Your task to perform on an android device: toggle airplane mode Image 0: 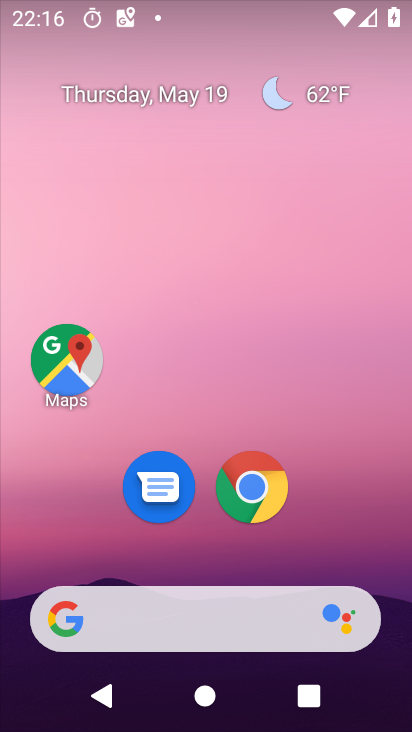
Step 0: drag from (311, 558) to (252, 161)
Your task to perform on an android device: toggle airplane mode Image 1: 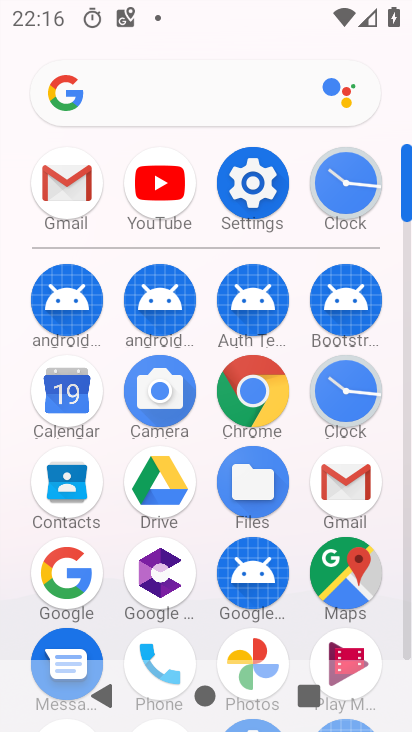
Step 1: click (264, 184)
Your task to perform on an android device: toggle airplane mode Image 2: 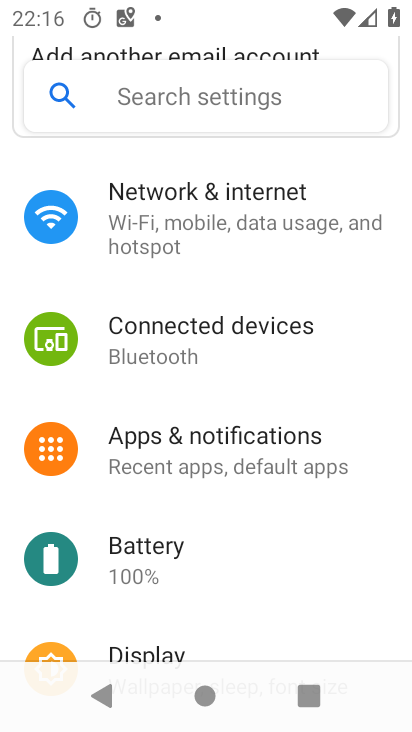
Step 2: click (262, 217)
Your task to perform on an android device: toggle airplane mode Image 3: 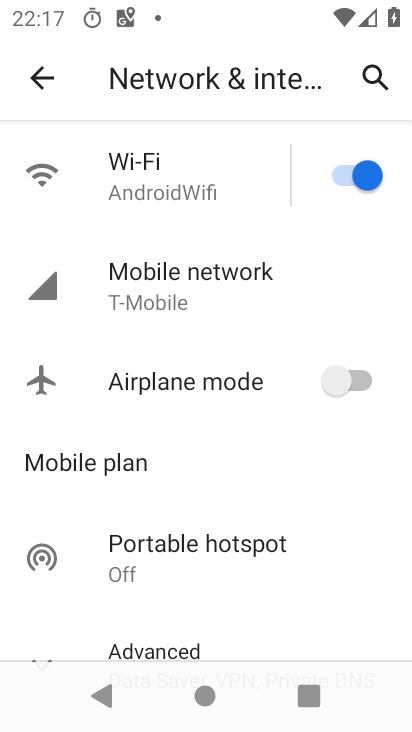
Step 3: click (355, 384)
Your task to perform on an android device: toggle airplane mode Image 4: 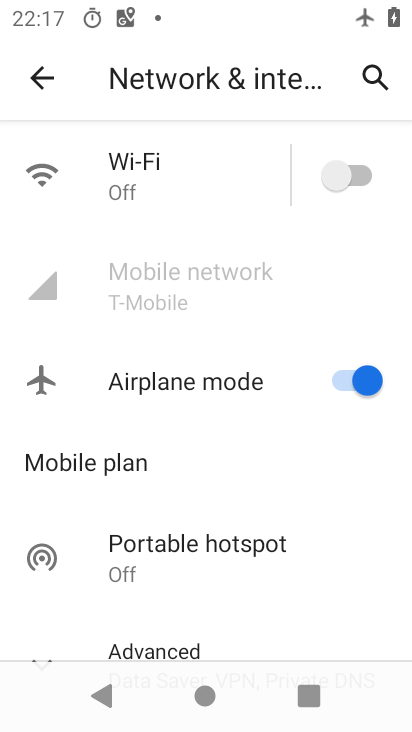
Step 4: task complete